Your task to perform on an android device: Open the Play Movies app and select the watchlist tab. Image 0: 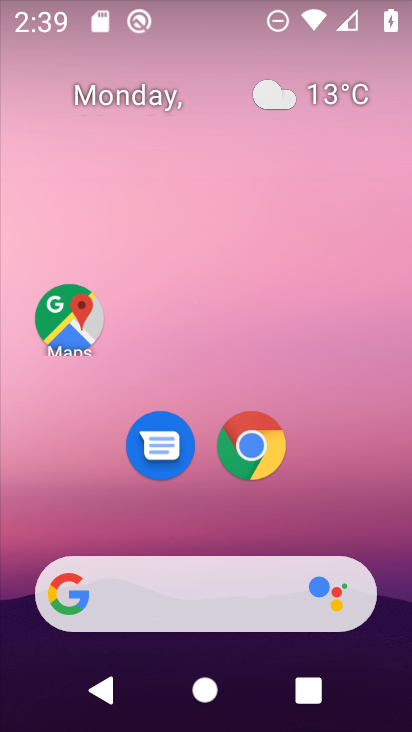
Step 0: drag from (401, 628) to (274, 53)
Your task to perform on an android device: Open the Play Movies app and select the watchlist tab. Image 1: 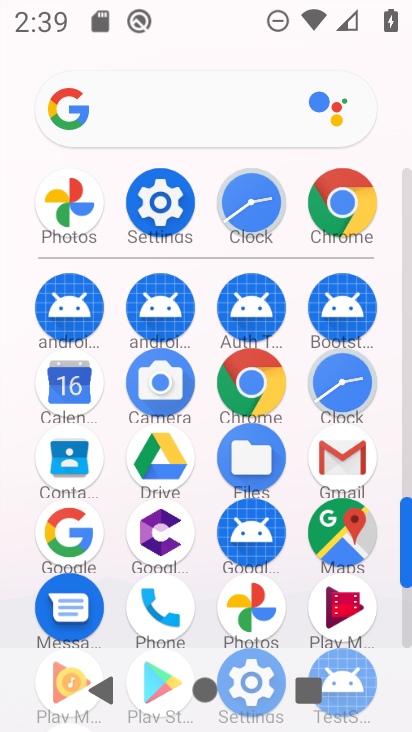
Step 1: click (342, 609)
Your task to perform on an android device: Open the Play Movies app and select the watchlist tab. Image 2: 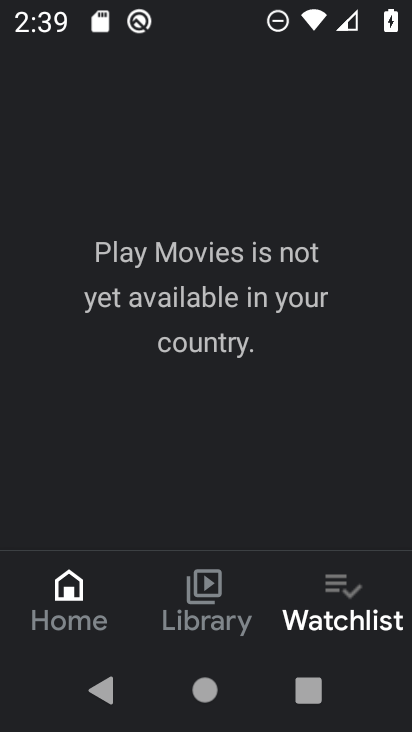
Step 2: task complete